Your task to perform on an android device: Open settings on Google Maps Image 0: 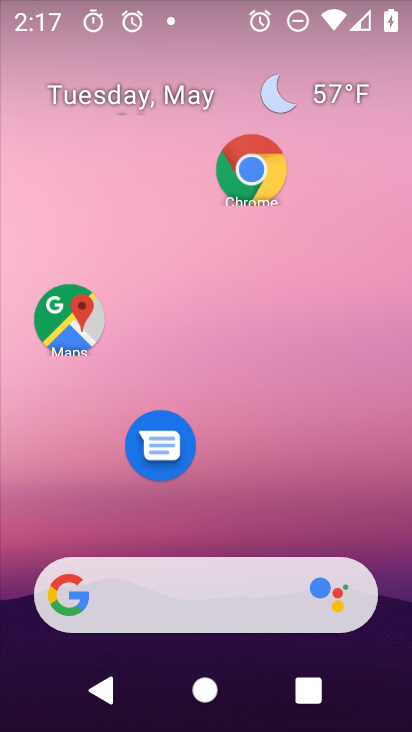
Step 0: drag from (215, 715) to (196, 140)
Your task to perform on an android device: Open settings on Google Maps Image 1: 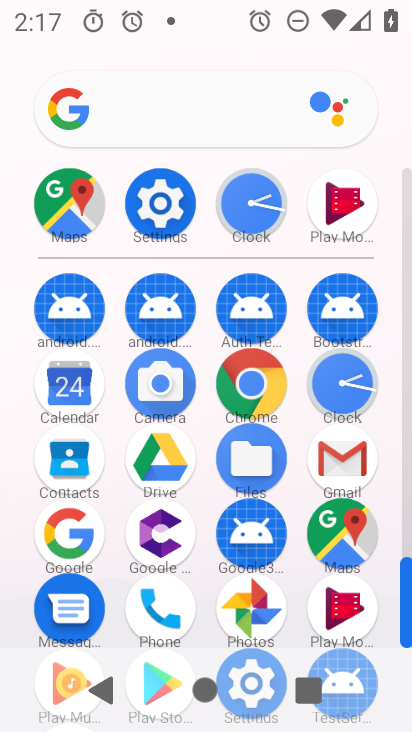
Step 1: click (334, 527)
Your task to perform on an android device: Open settings on Google Maps Image 2: 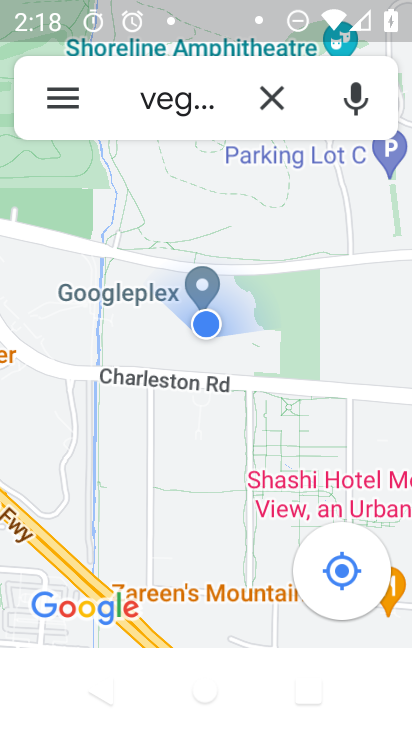
Step 2: click (64, 98)
Your task to perform on an android device: Open settings on Google Maps Image 3: 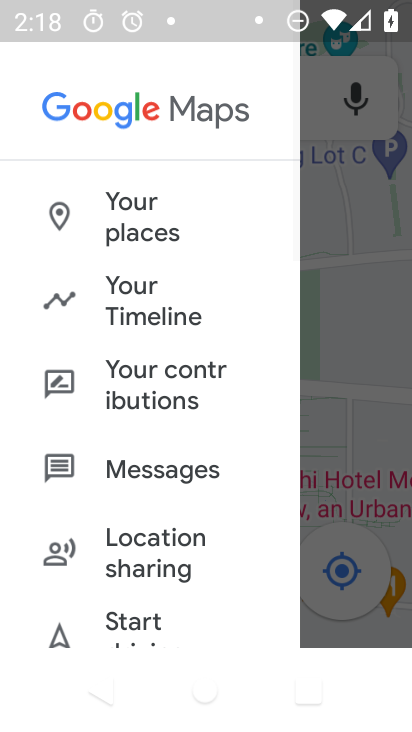
Step 3: drag from (153, 600) to (143, 208)
Your task to perform on an android device: Open settings on Google Maps Image 4: 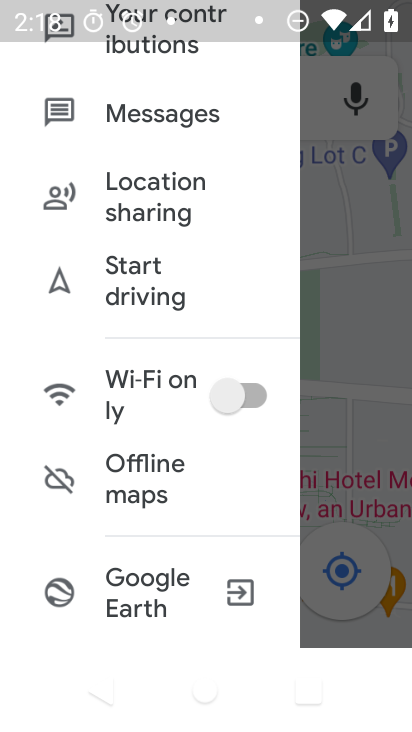
Step 4: drag from (153, 301) to (153, 197)
Your task to perform on an android device: Open settings on Google Maps Image 5: 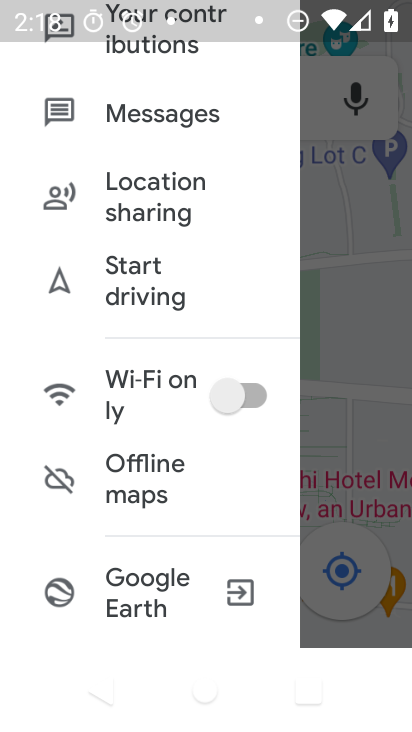
Step 5: drag from (151, 608) to (160, 209)
Your task to perform on an android device: Open settings on Google Maps Image 6: 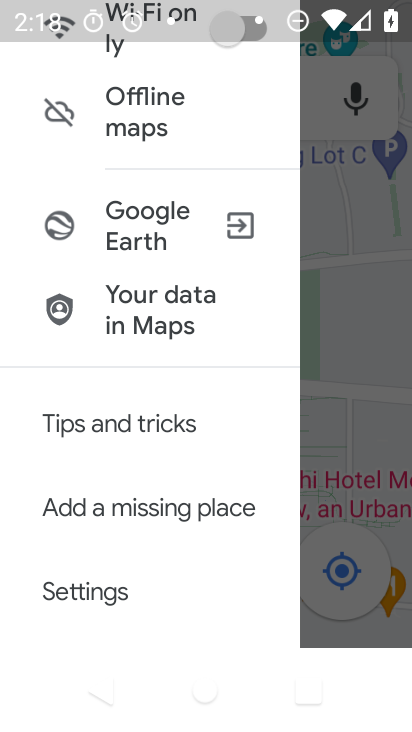
Step 6: click (106, 590)
Your task to perform on an android device: Open settings on Google Maps Image 7: 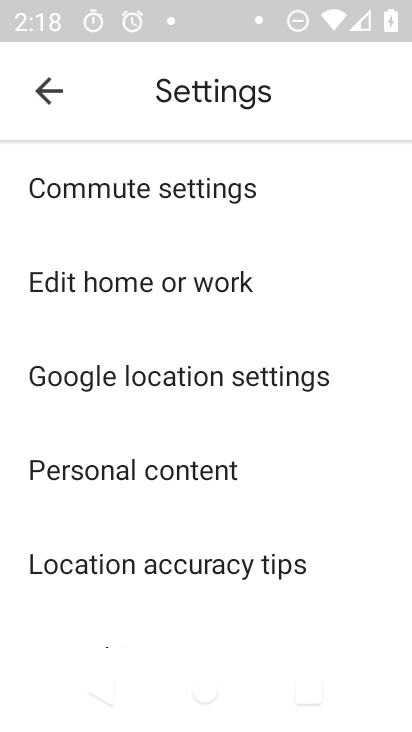
Step 7: task complete